Your task to perform on an android device: Toggle the flashlight Image 0: 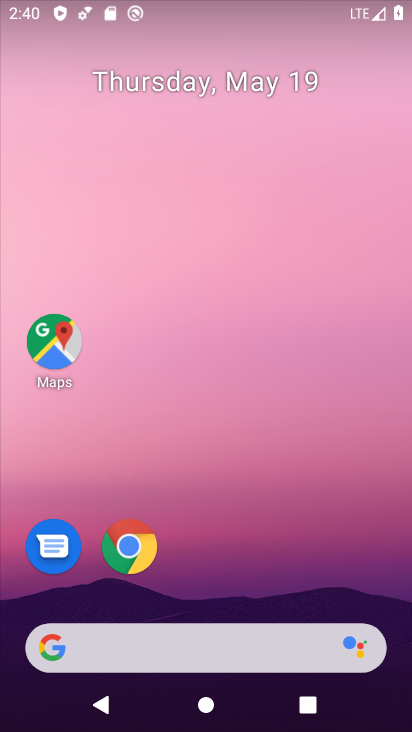
Step 0: press home button
Your task to perform on an android device: Toggle the flashlight Image 1: 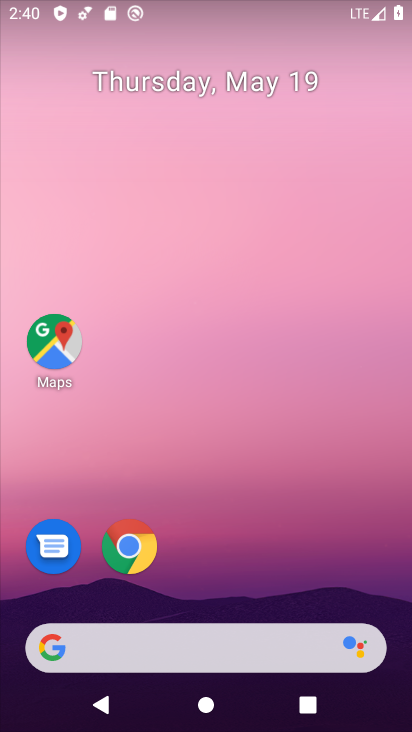
Step 1: task complete